Your task to perform on an android device: install app "Microsoft Excel" Image 0: 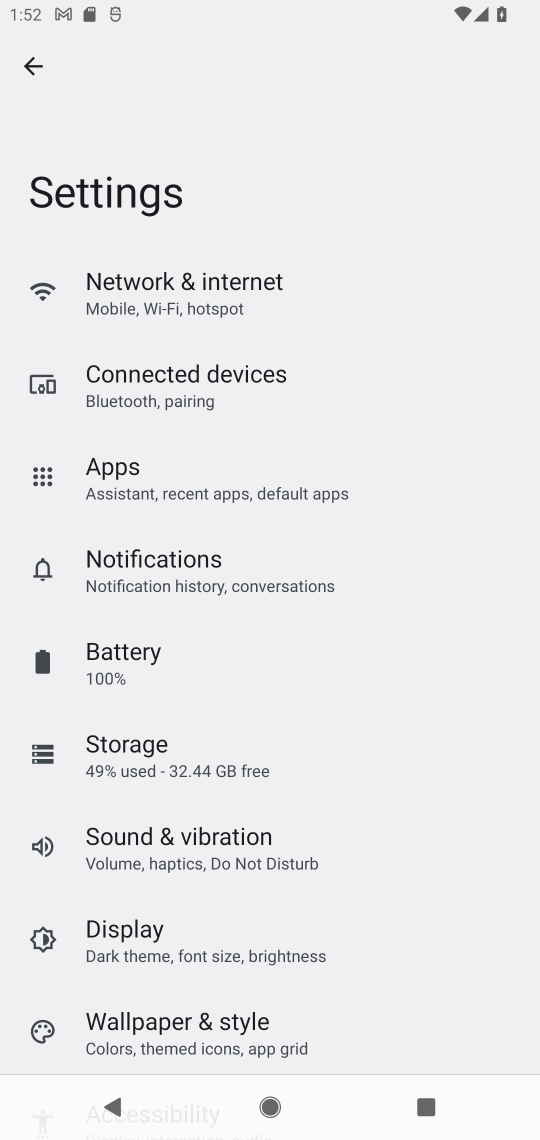
Step 0: press home button
Your task to perform on an android device: install app "Microsoft Excel" Image 1: 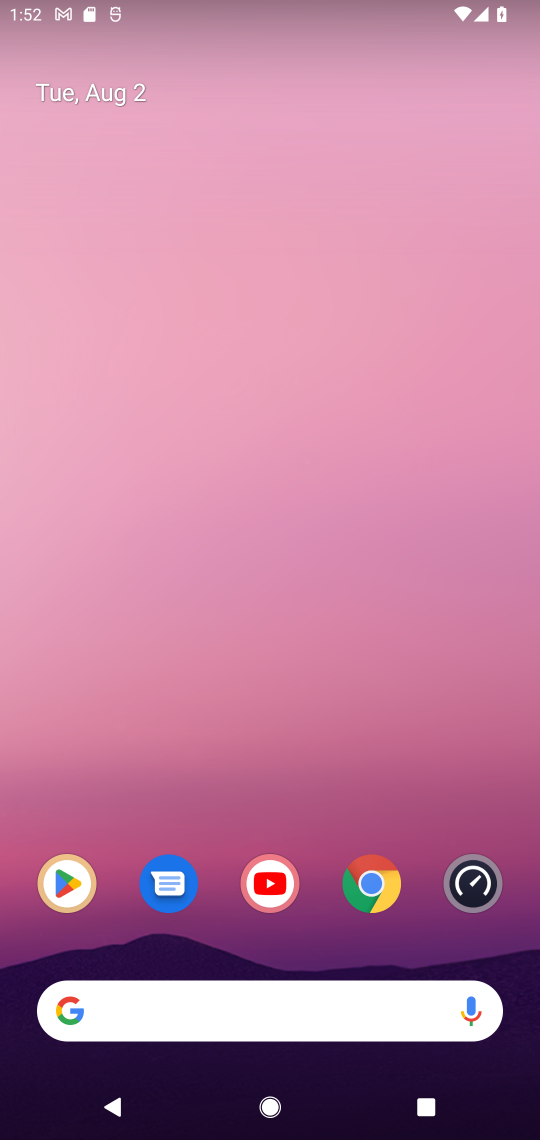
Step 1: click (69, 876)
Your task to perform on an android device: install app "Microsoft Excel" Image 2: 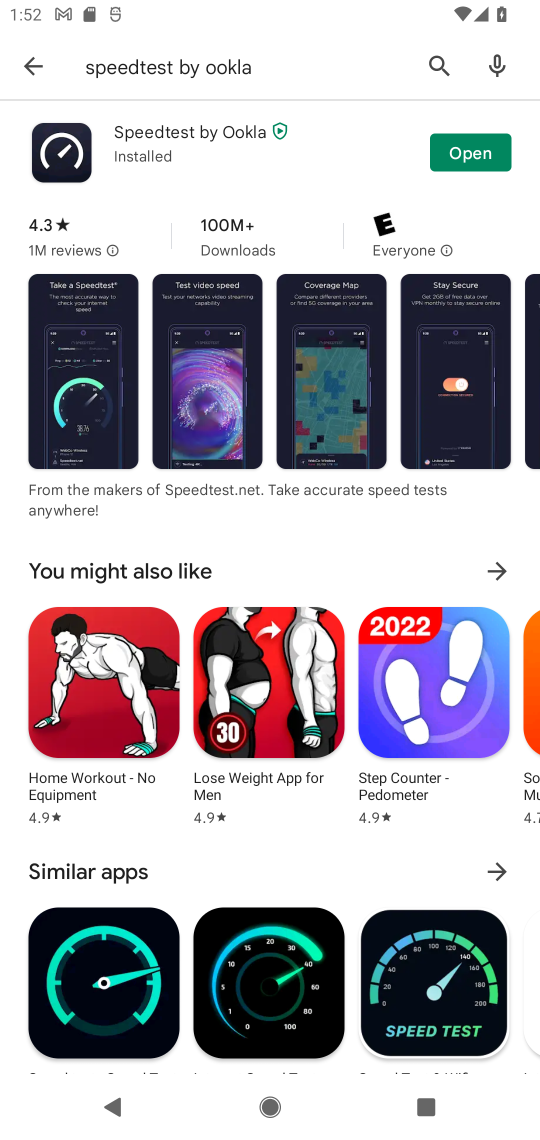
Step 2: click (433, 67)
Your task to perform on an android device: install app "Microsoft Excel" Image 3: 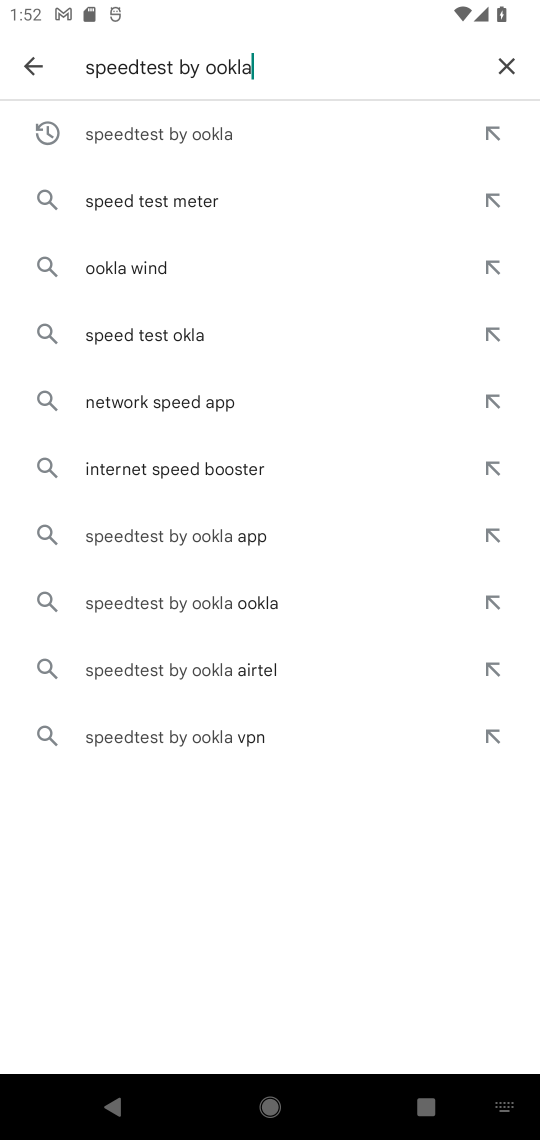
Step 3: click (498, 63)
Your task to perform on an android device: install app "Microsoft Excel" Image 4: 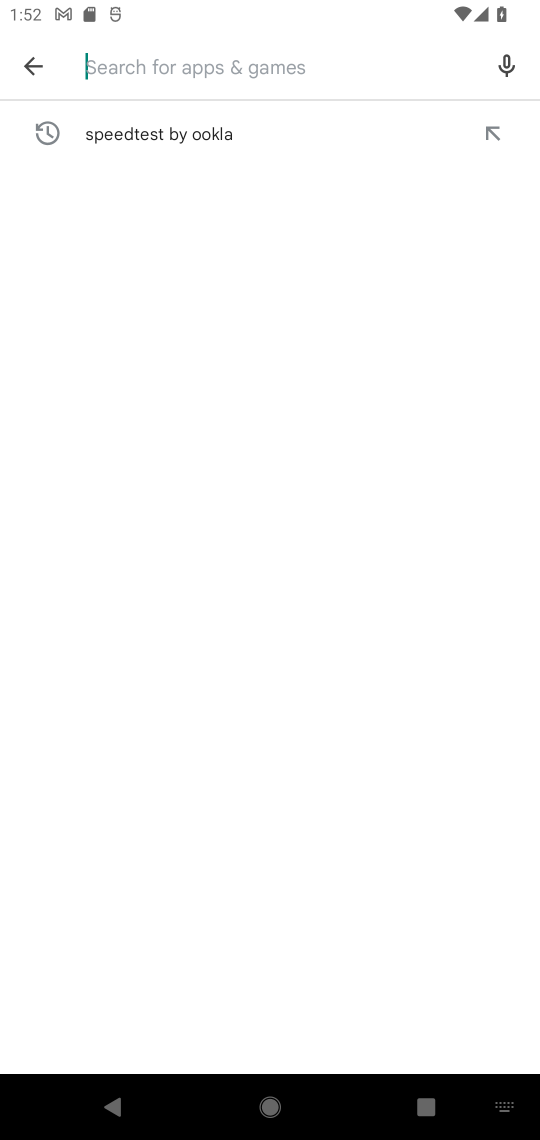
Step 4: type "Microsoft Excel"
Your task to perform on an android device: install app "Microsoft Excel" Image 5: 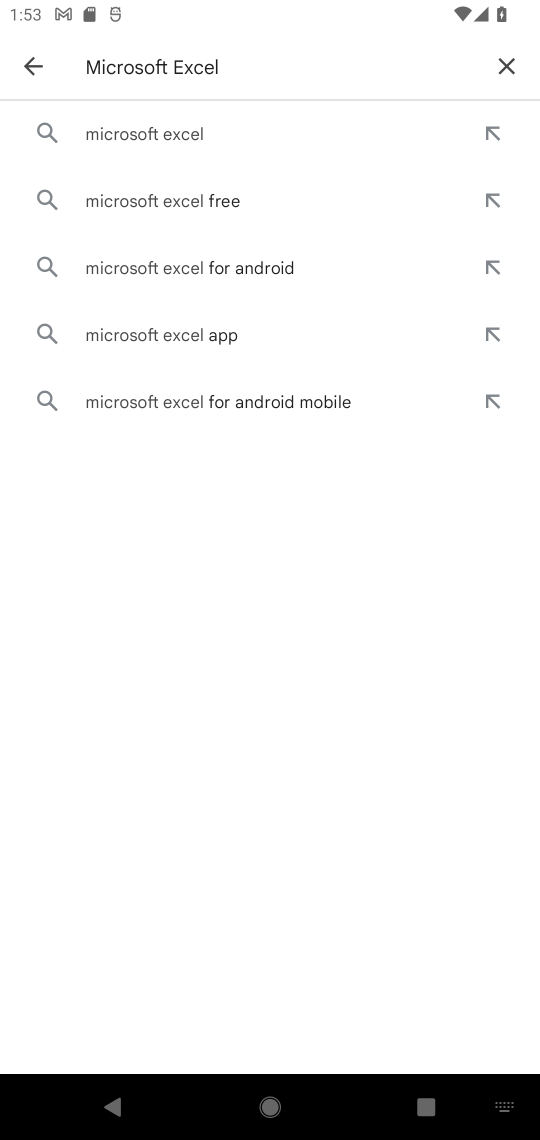
Step 5: click (162, 124)
Your task to perform on an android device: install app "Microsoft Excel" Image 6: 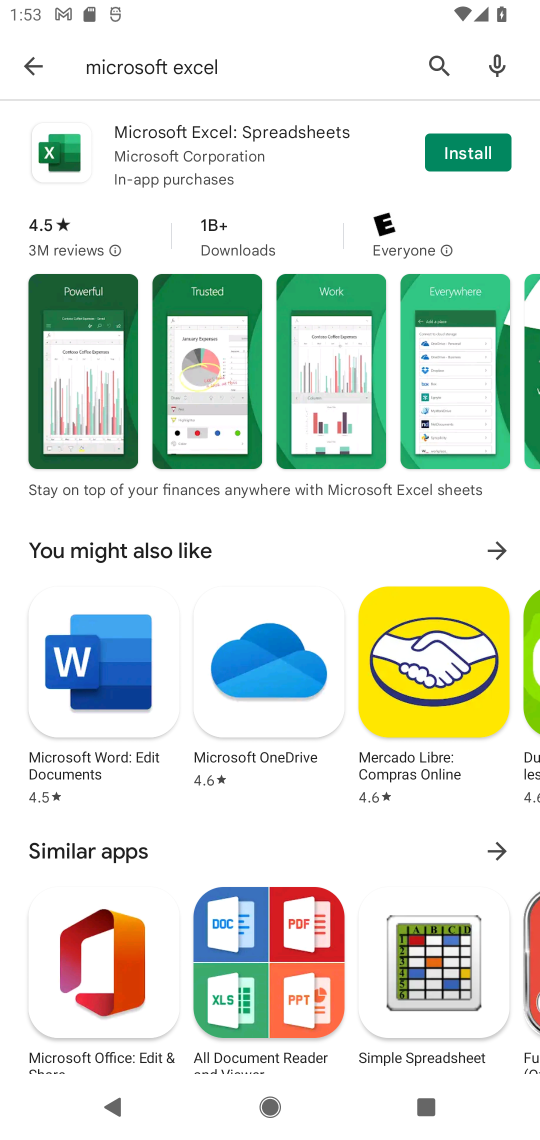
Step 6: click (489, 149)
Your task to perform on an android device: install app "Microsoft Excel" Image 7: 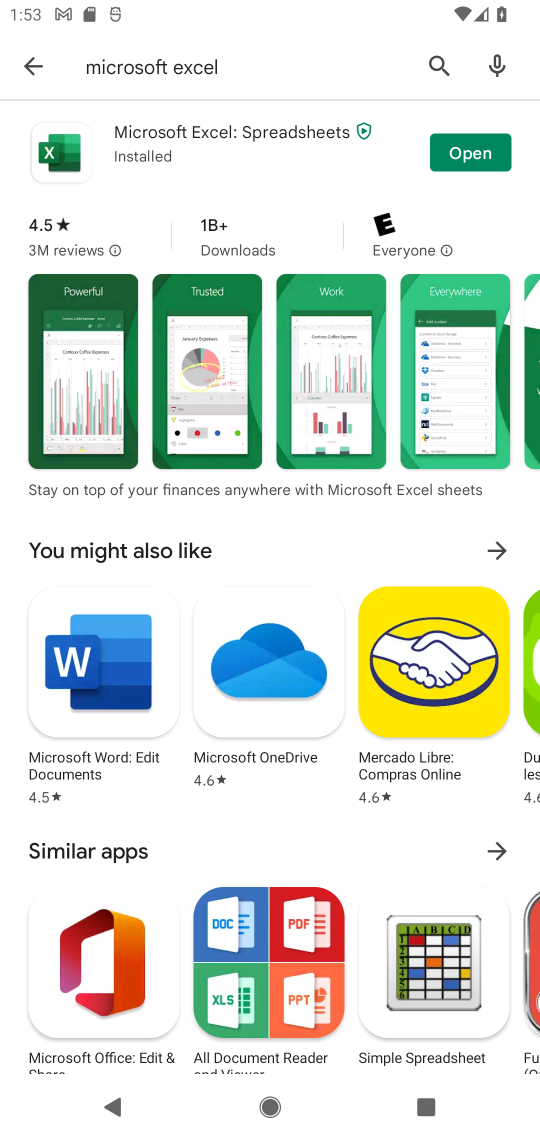
Step 7: task complete